Your task to perform on an android device: Go to accessibility settings Image 0: 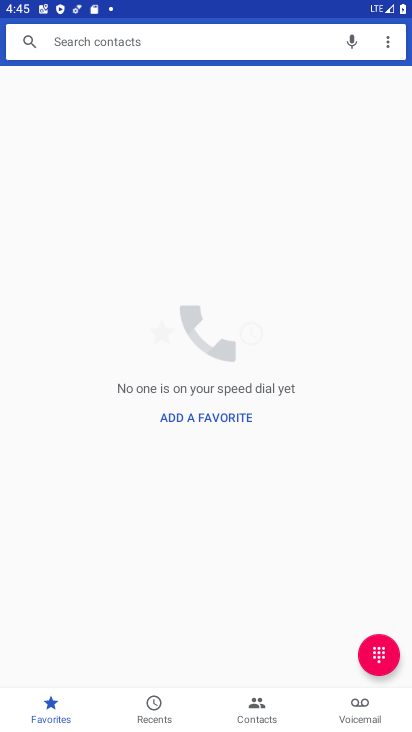
Step 0: press home button
Your task to perform on an android device: Go to accessibility settings Image 1: 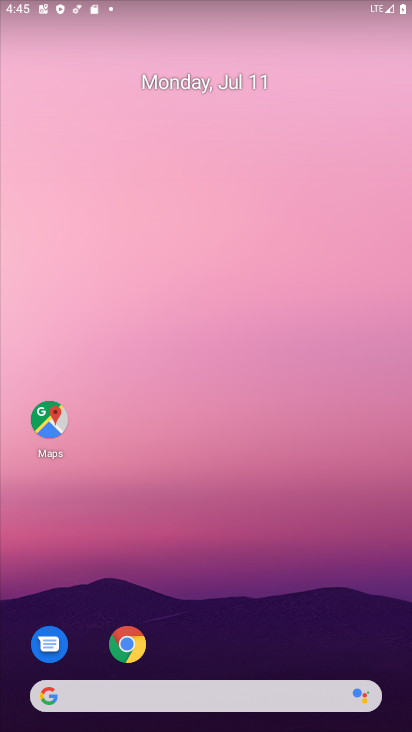
Step 1: drag from (328, 624) to (292, 117)
Your task to perform on an android device: Go to accessibility settings Image 2: 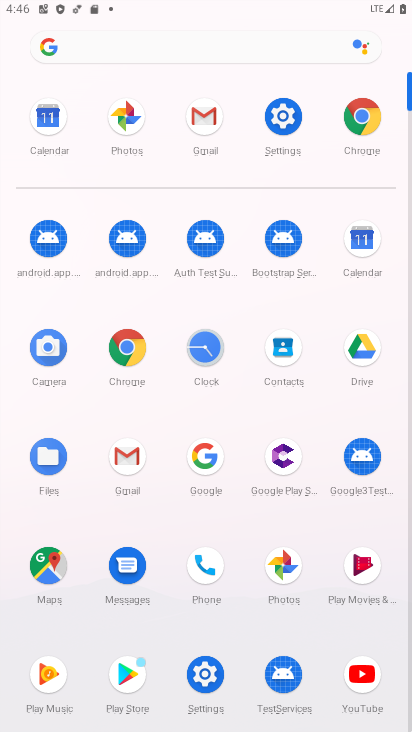
Step 2: click (286, 129)
Your task to perform on an android device: Go to accessibility settings Image 3: 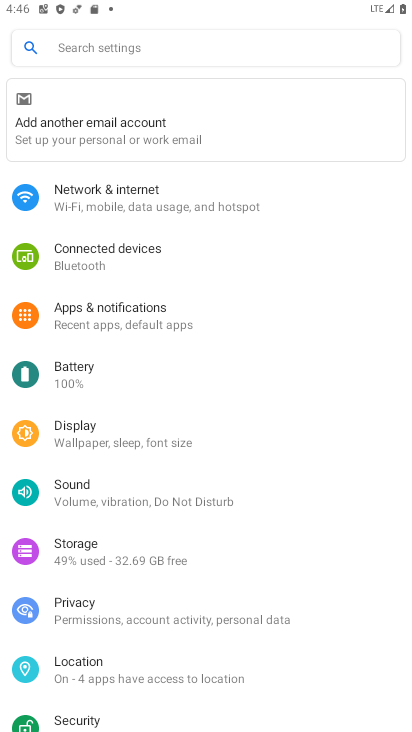
Step 3: drag from (276, 569) to (265, 241)
Your task to perform on an android device: Go to accessibility settings Image 4: 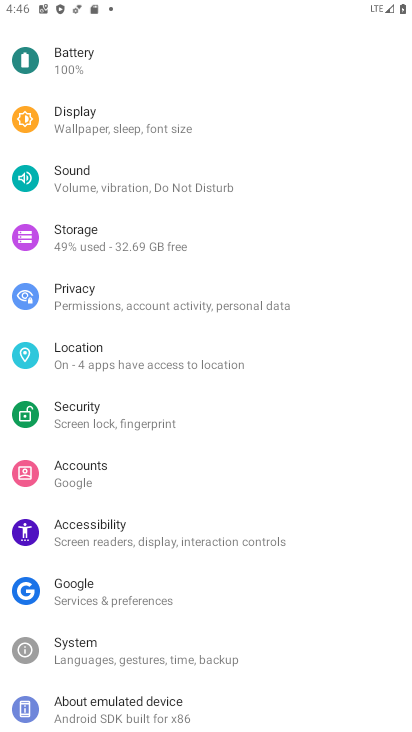
Step 4: click (151, 533)
Your task to perform on an android device: Go to accessibility settings Image 5: 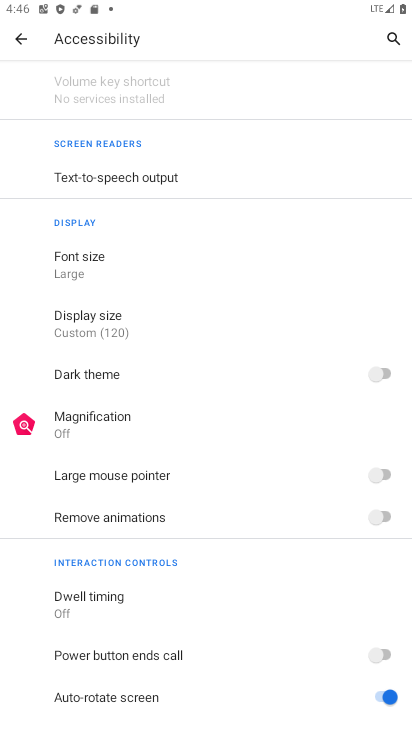
Step 5: task complete